Your task to perform on an android device: see creations saved in the google photos Image 0: 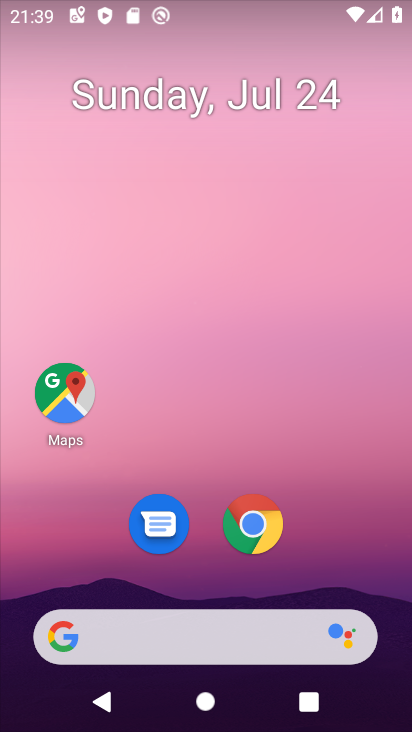
Step 0: press home button
Your task to perform on an android device: see creations saved in the google photos Image 1: 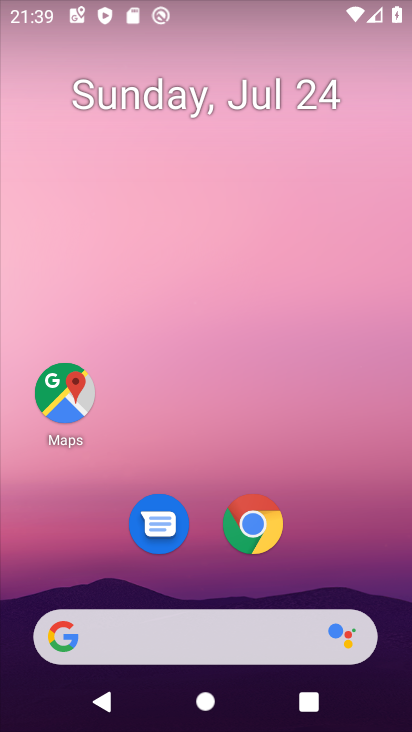
Step 1: drag from (184, 636) to (277, 70)
Your task to perform on an android device: see creations saved in the google photos Image 2: 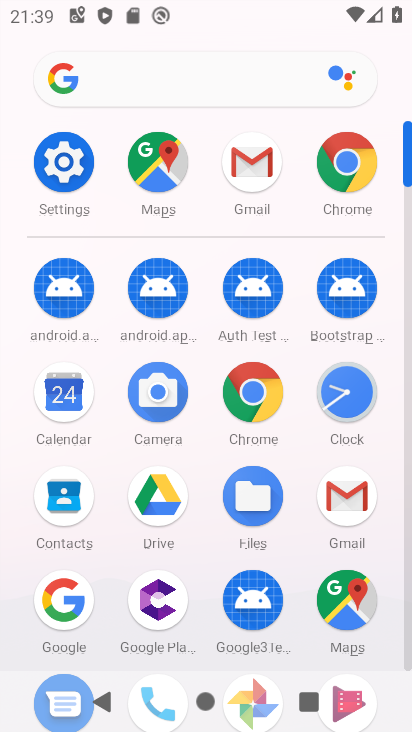
Step 2: drag from (212, 547) to (317, 135)
Your task to perform on an android device: see creations saved in the google photos Image 3: 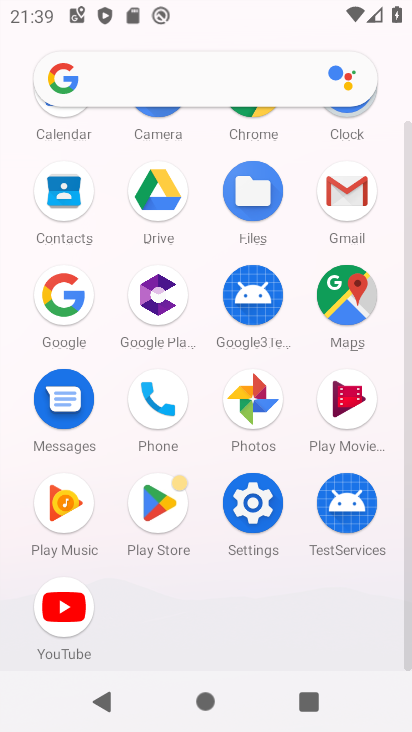
Step 3: click (268, 399)
Your task to perform on an android device: see creations saved in the google photos Image 4: 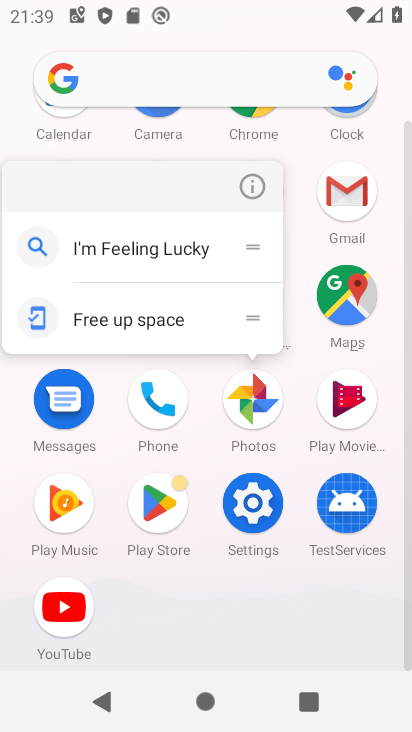
Step 4: click (250, 401)
Your task to perform on an android device: see creations saved in the google photos Image 5: 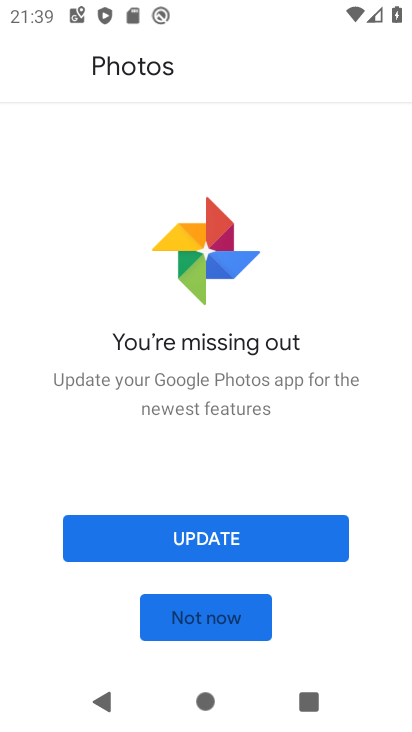
Step 5: click (206, 621)
Your task to perform on an android device: see creations saved in the google photos Image 6: 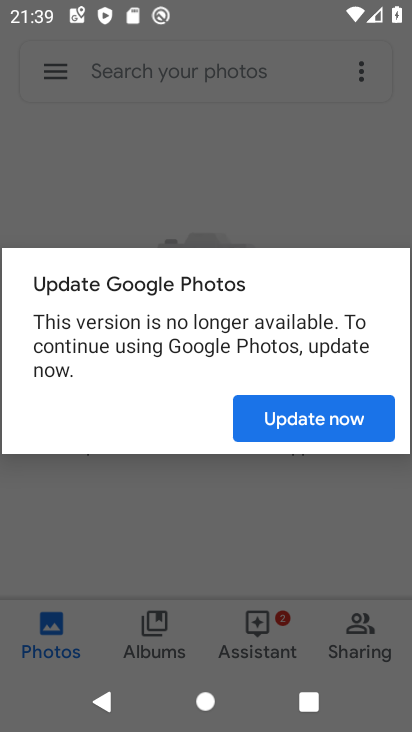
Step 6: click (290, 430)
Your task to perform on an android device: see creations saved in the google photos Image 7: 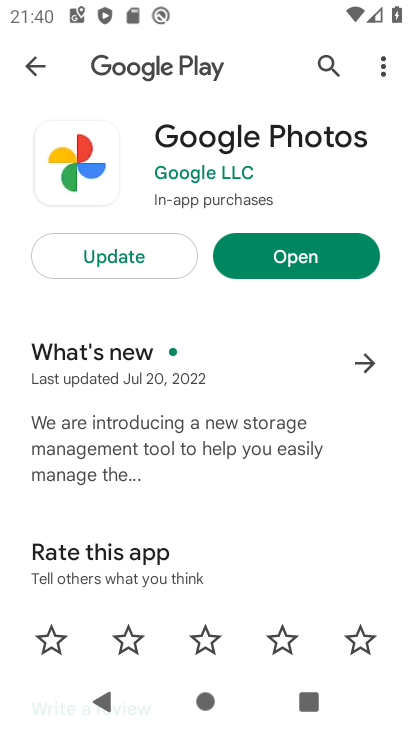
Step 7: click (270, 257)
Your task to perform on an android device: see creations saved in the google photos Image 8: 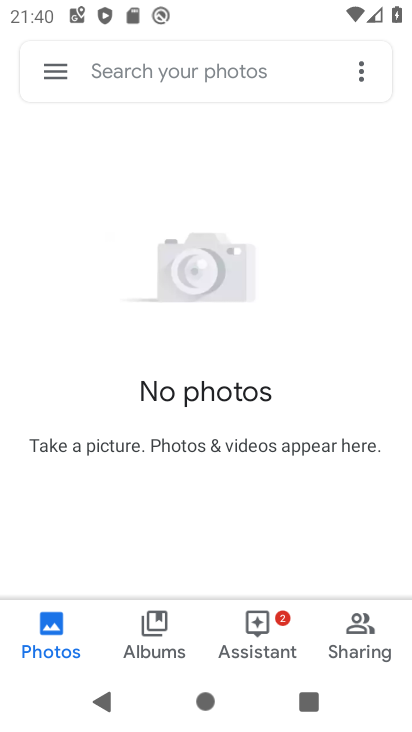
Step 8: click (154, 632)
Your task to perform on an android device: see creations saved in the google photos Image 9: 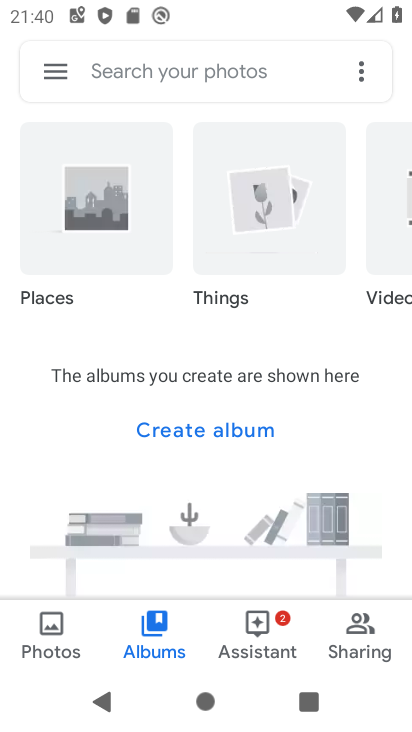
Step 9: click (174, 67)
Your task to perform on an android device: see creations saved in the google photos Image 10: 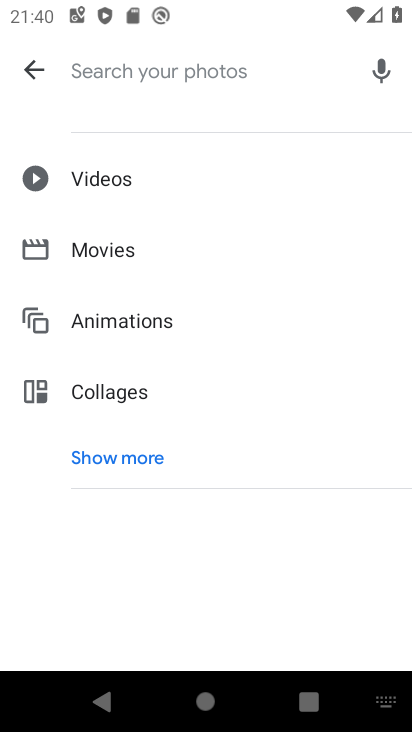
Step 10: click (127, 470)
Your task to perform on an android device: see creations saved in the google photos Image 11: 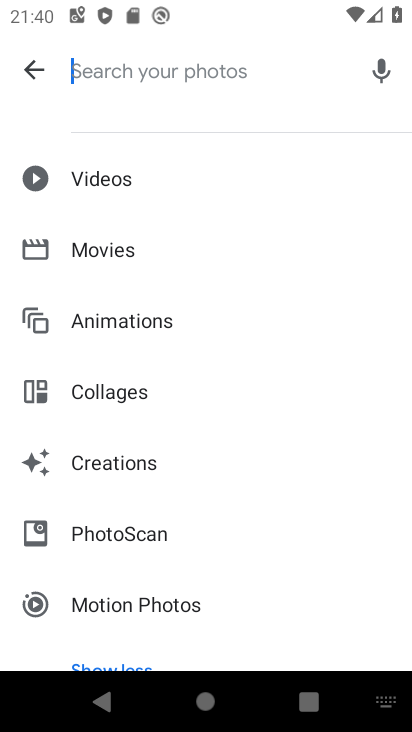
Step 11: click (126, 463)
Your task to perform on an android device: see creations saved in the google photos Image 12: 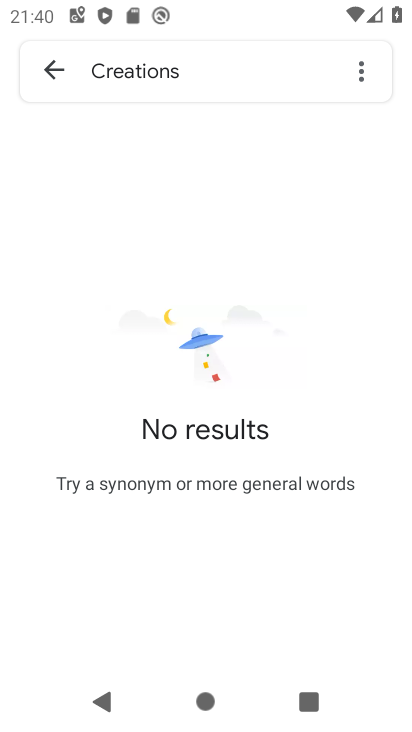
Step 12: task complete